Your task to perform on an android device: turn on translation in the chrome app Image 0: 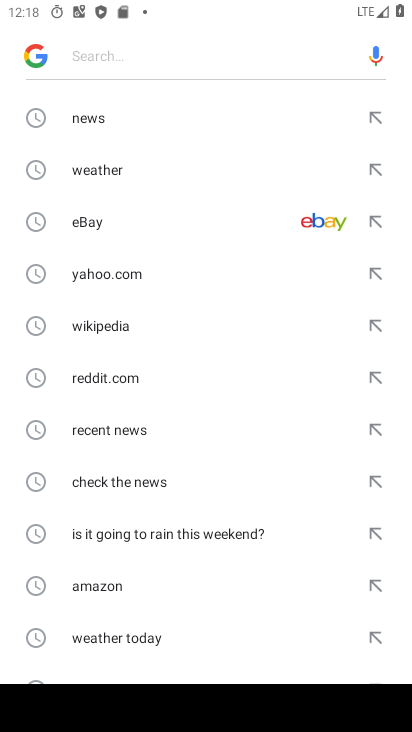
Step 0: press home button
Your task to perform on an android device: turn on translation in the chrome app Image 1: 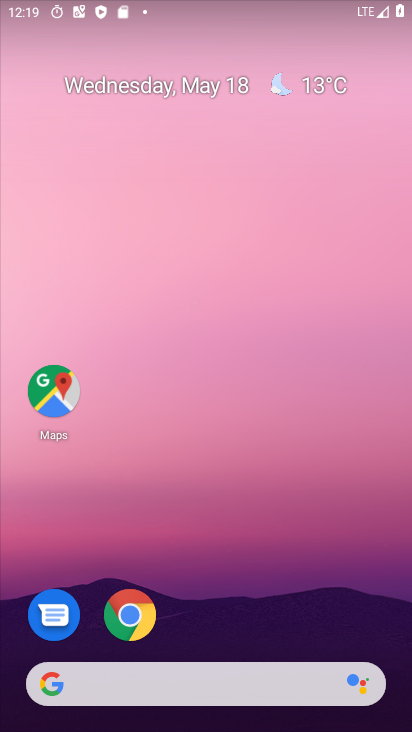
Step 1: click (137, 623)
Your task to perform on an android device: turn on translation in the chrome app Image 2: 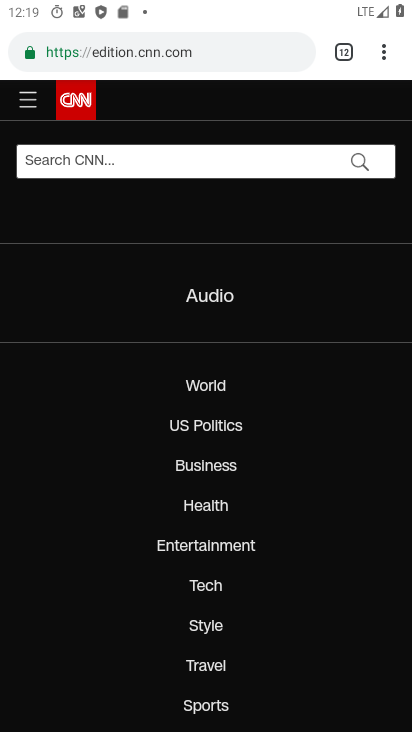
Step 2: drag from (381, 56) to (242, 630)
Your task to perform on an android device: turn on translation in the chrome app Image 3: 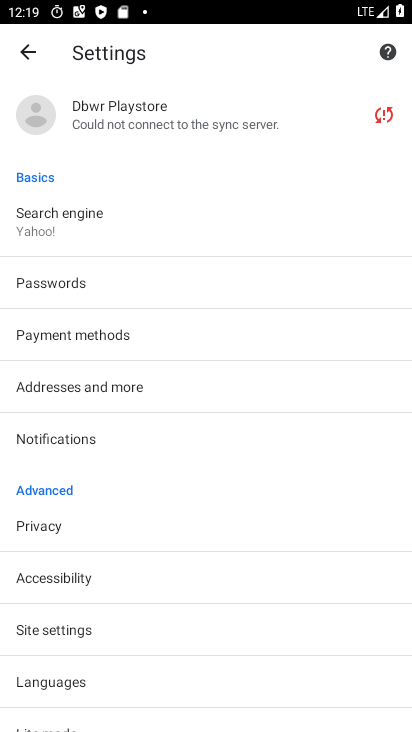
Step 3: drag from (148, 665) to (236, 306)
Your task to perform on an android device: turn on translation in the chrome app Image 4: 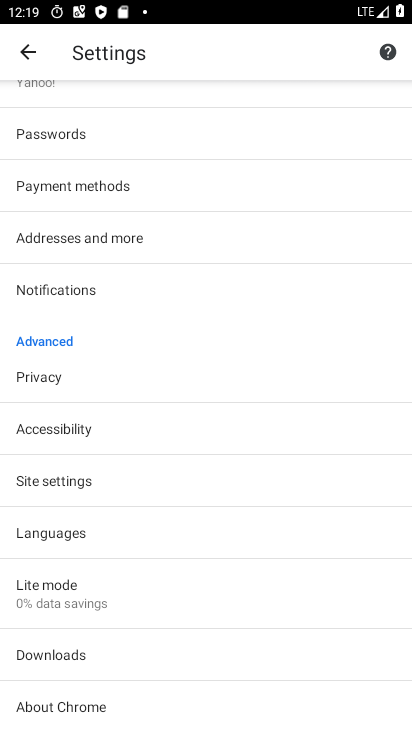
Step 4: click (89, 540)
Your task to perform on an android device: turn on translation in the chrome app Image 5: 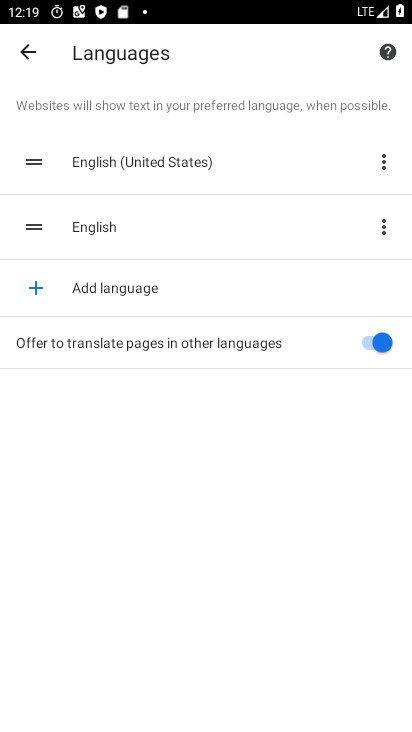
Step 5: task complete